Your task to perform on an android device: Open Google Image 0: 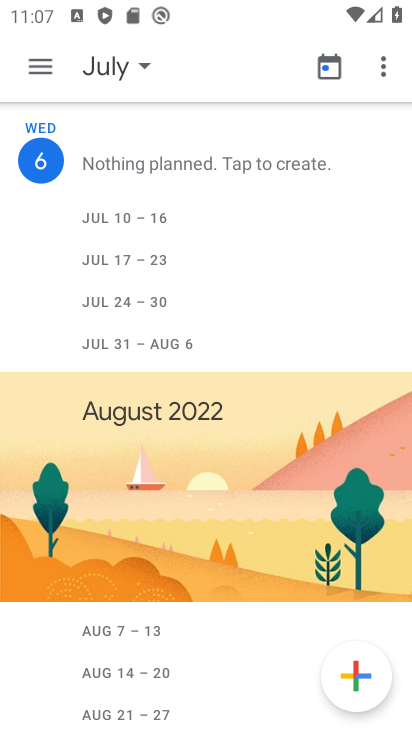
Step 0: press home button
Your task to perform on an android device: Open Google Image 1: 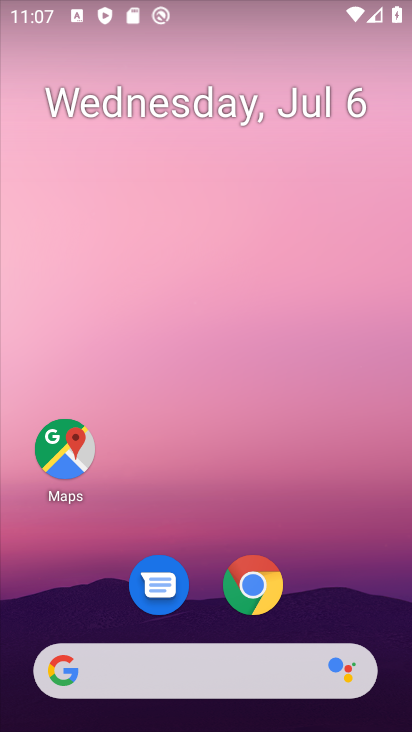
Step 1: click (232, 674)
Your task to perform on an android device: Open Google Image 2: 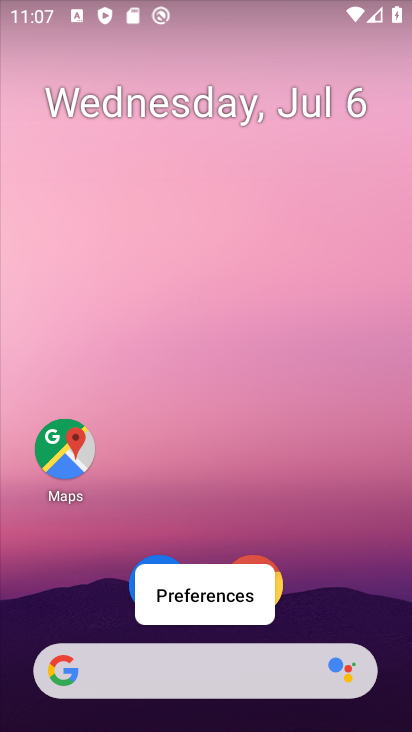
Step 2: click (200, 678)
Your task to perform on an android device: Open Google Image 3: 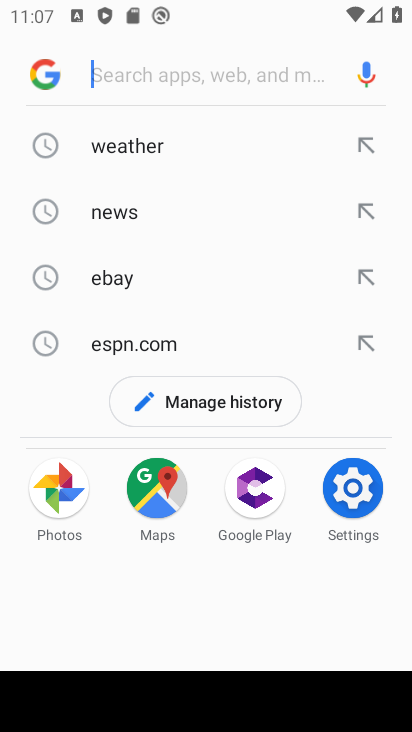
Step 3: click (49, 67)
Your task to perform on an android device: Open Google Image 4: 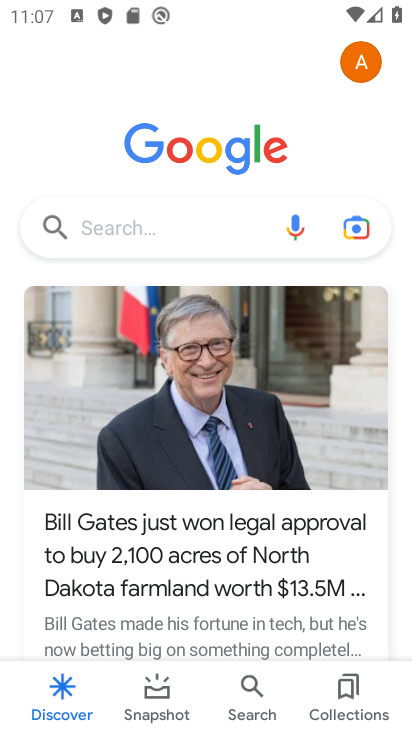
Step 4: task complete